Your task to perform on an android device: Open settings on Google Maps Image 0: 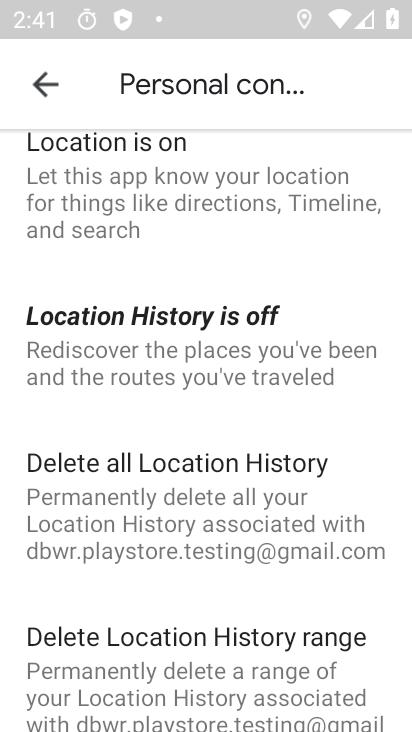
Step 0: press home button
Your task to perform on an android device: Open settings on Google Maps Image 1: 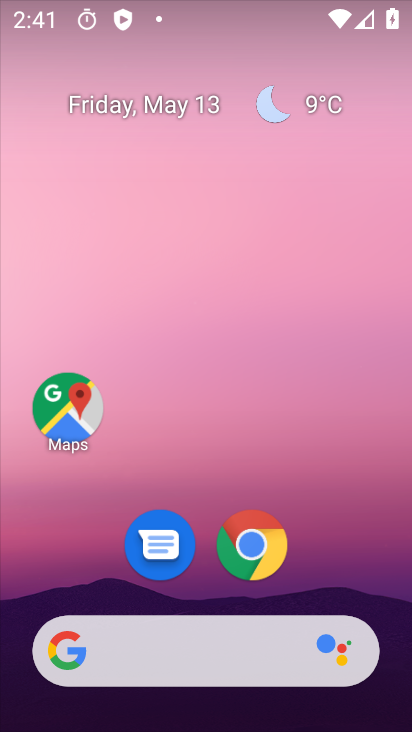
Step 1: click (55, 403)
Your task to perform on an android device: Open settings on Google Maps Image 2: 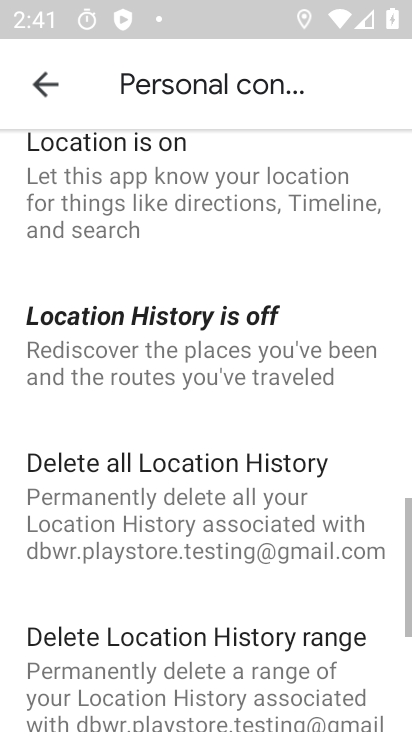
Step 2: click (53, 78)
Your task to perform on an android device: Open settings on Google Maps Image 3: 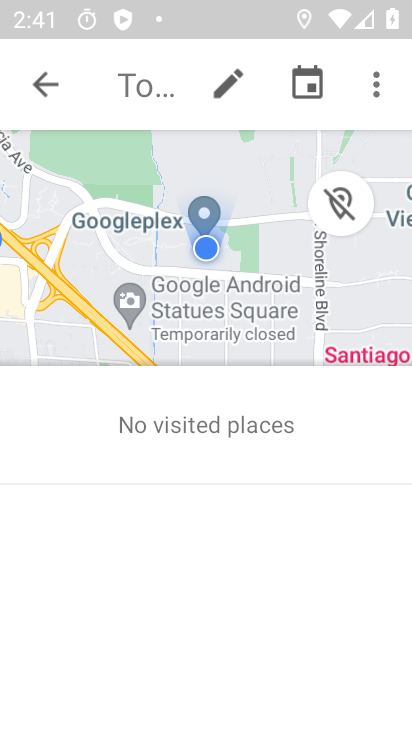
Step 3: click (53, 78)
Your task to perform on an android device: Open settings on Google Maps Image 4: 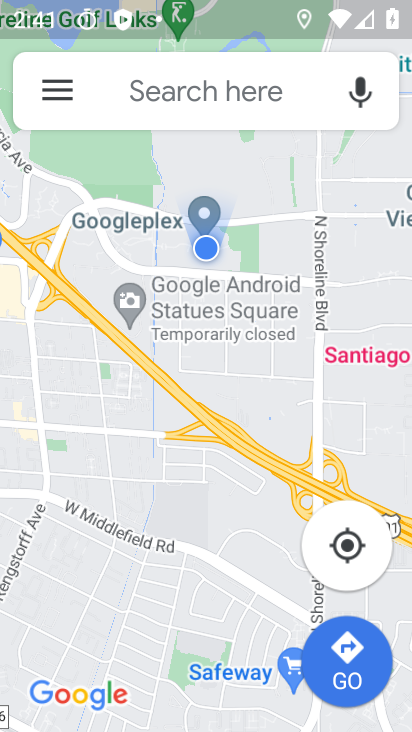
Step 4: click (53, 78)
Your task to perform on an android device: Open settings on Google Maps Image 5: 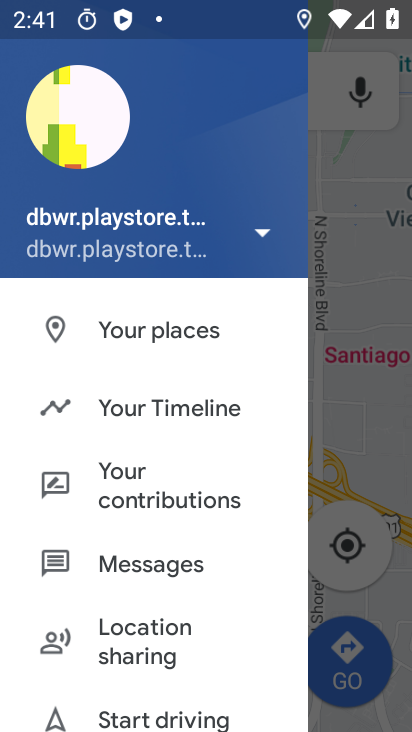
Step 5: drag from (213, 659) to (234, 243)
Your task to perform on an android device: Open settings on Google Maps Image 6: 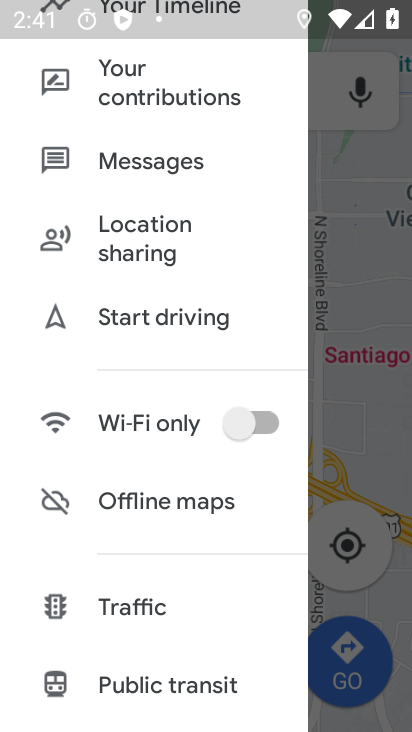
Step 6: drag from (196, 617) to (241, 233)
Your task to perform on an android device: Open settings on Google Maps Image 7: 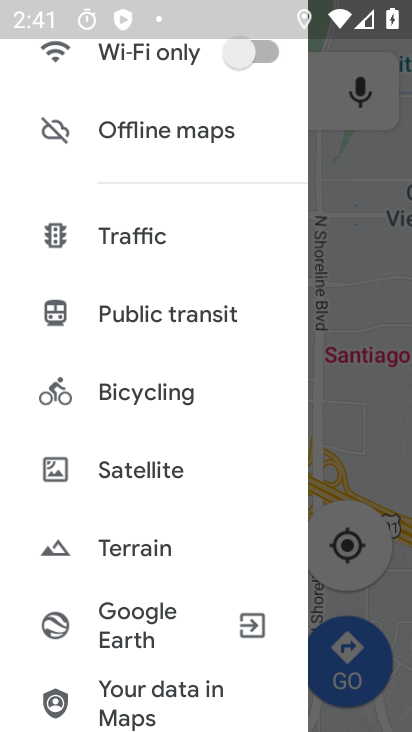
Step 7: drag from (223, 546) to (246, 200)
Your task to perform on an android device: Open settings on Google Maps Image 8: 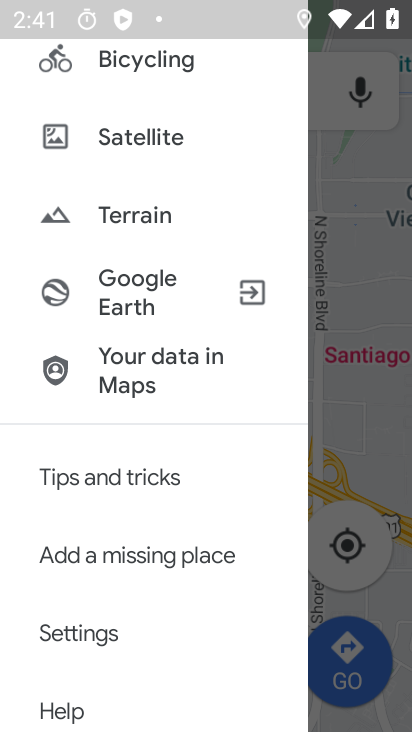
Step 8: click (86, 637)
Your task to perform on an android device: Open settings on Google Maps Image 9: 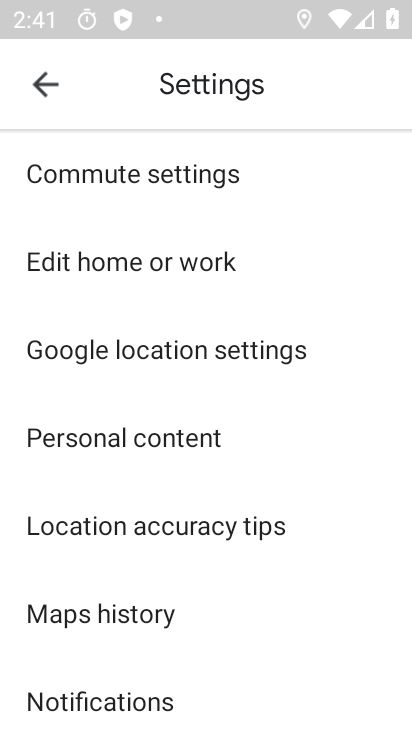
Step 9: task complete